Your task to perform on an android device: Is it going to rain today? Image 0: 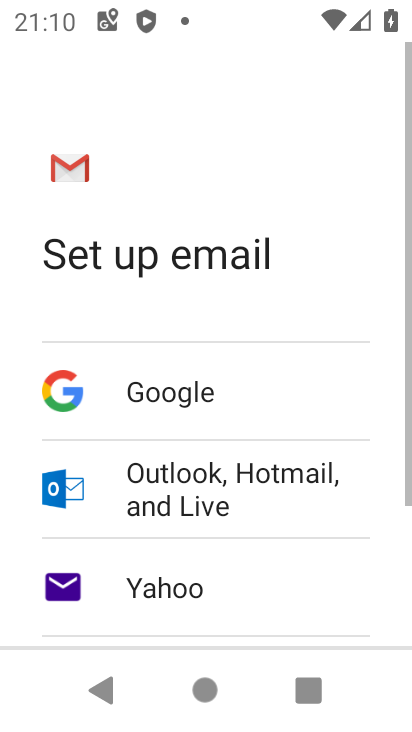
Step 0: press home button
Your task to perform on an android device: Is it going to rain today? Image 1: 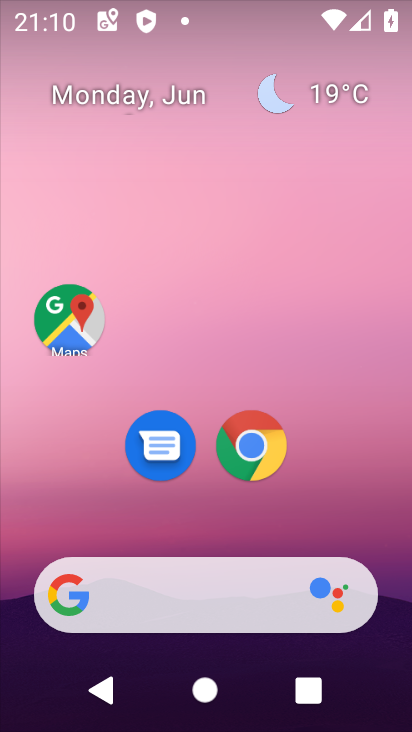
Step 1: click (331, 89)
Your task to perform on an android device: Is it going to rain today? Image 2: 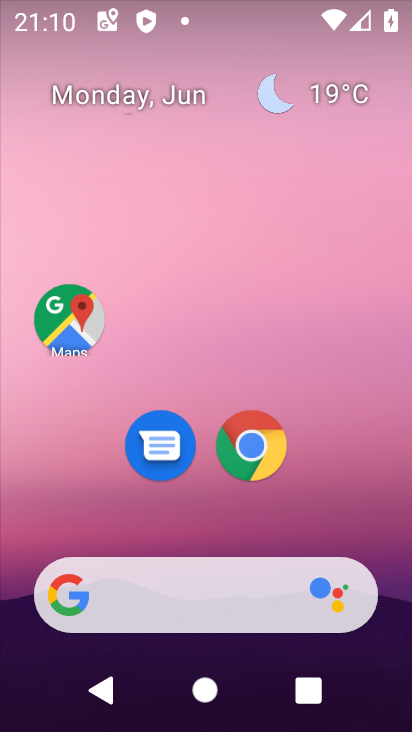
Step 2: click (334, 92)
Your task to perform on an android device: Is it going to rain today? Image 3: 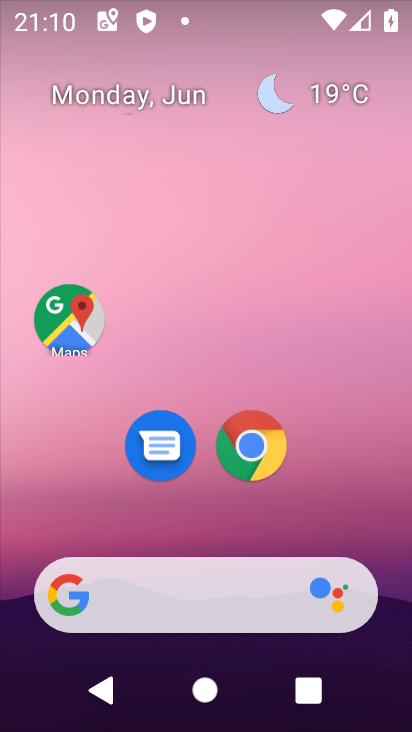
Step 3: click (323, 89)
Your task to perform on an android device: Is it going to rain today? Image 4: 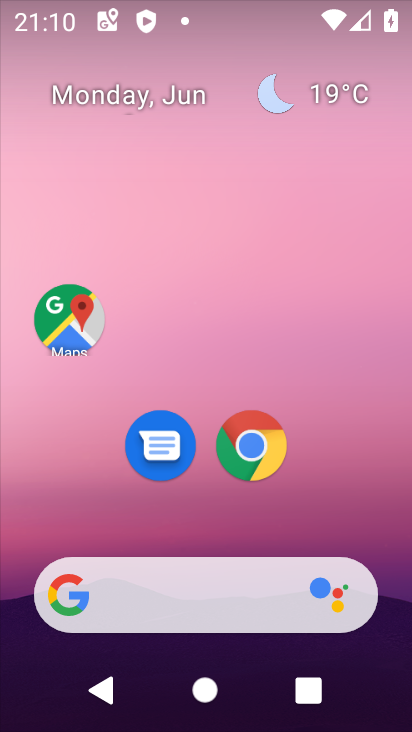
Step 4: click (326, 88)
Your task to perform on an android device: Is it going to rain today? Image 5: 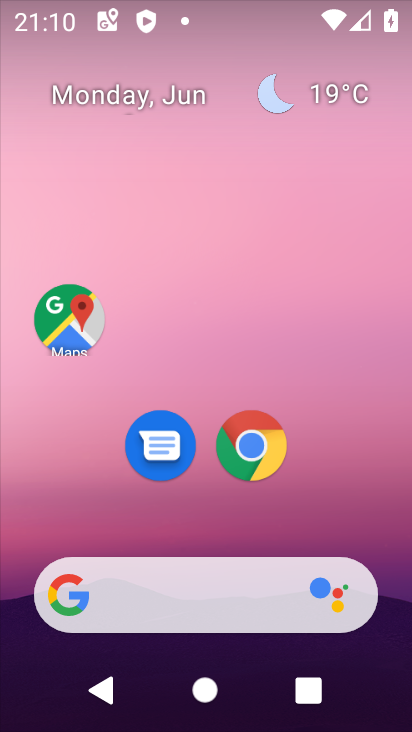
Step 5: click (326, 90)
Your task to perform on an android device: Is it going to rain today? Image 6: 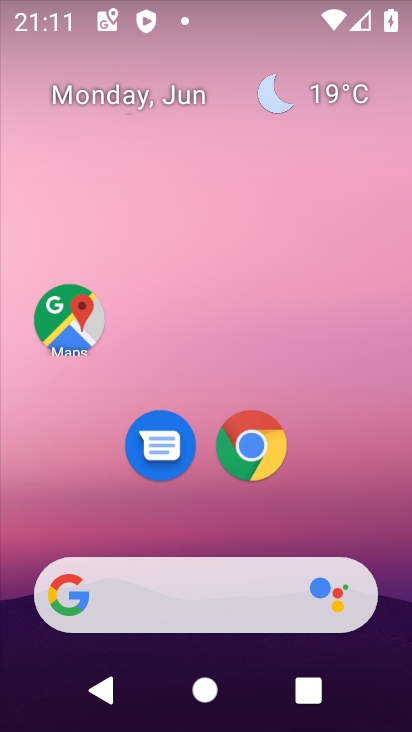
Step 6: click (333, 87)
Your task to perform on an android device: Is it going to rain today? Image 7: 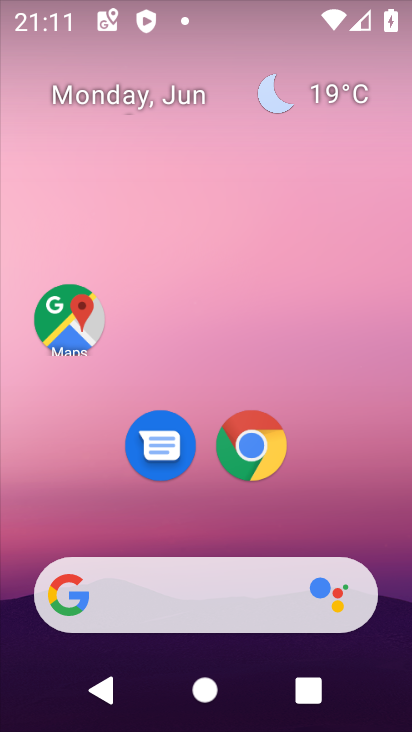
Step 7: click (357, 85)
Your task to perform on an android device: Is it going to rain today? Image 8: 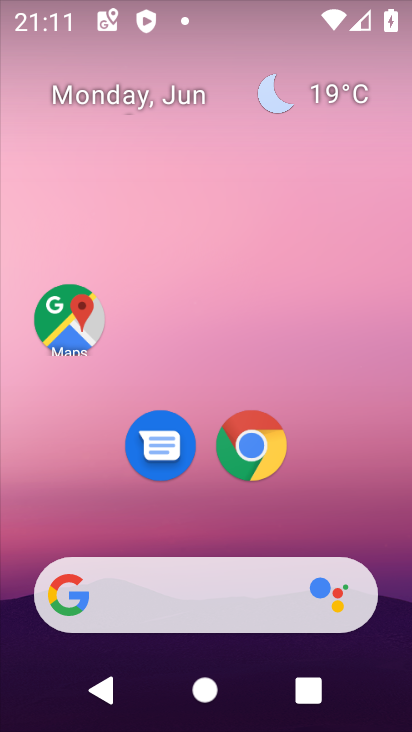
Step 8: click (343, 94)
Your task to perform on an android device: Is it going to rain today? Image 9: 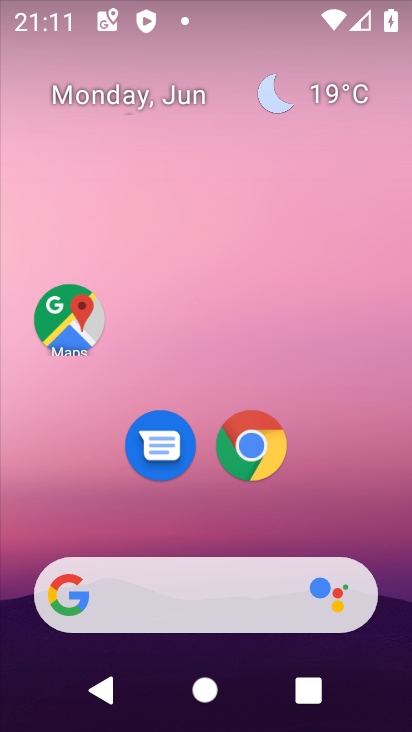
Step 9: drag from (17, 228) to (408, 251)
Your task to perform on an android device: Is it going to rain today? Image 10: 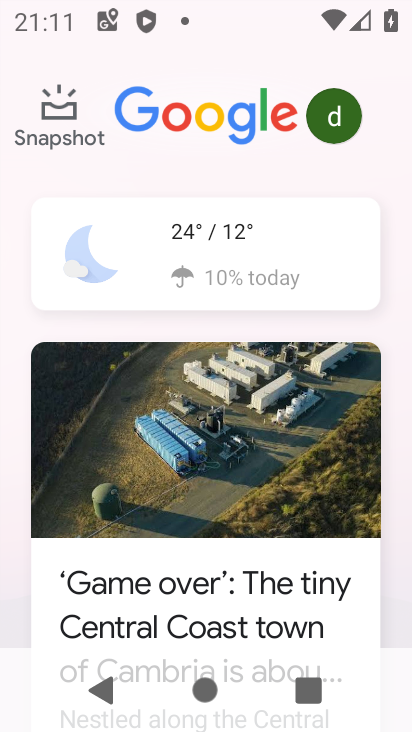
Step 10: click (194, 237)
Your task to perform on an android device: Is it going to rain today? Image 11: 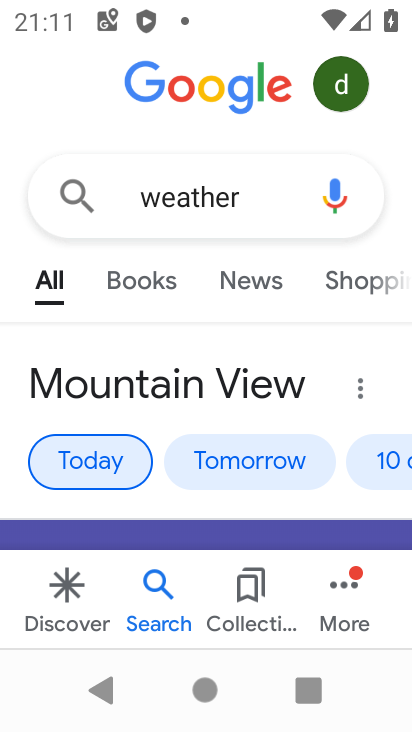
Step 11: drag from (213, 521) to (229, 235)
Your task to perform on an android device: Is it going to rain today? Image 12: 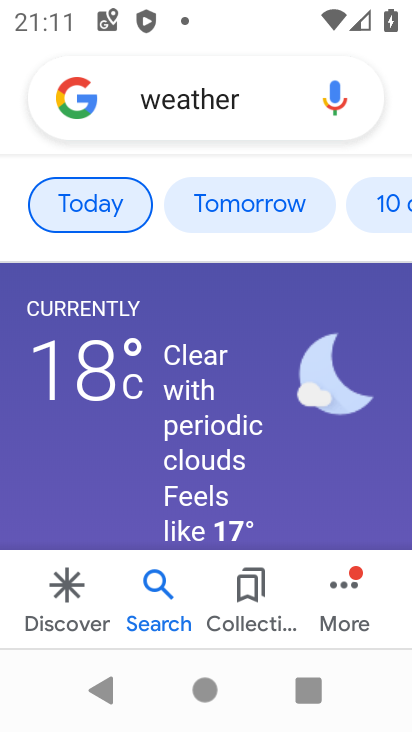
Step 12: click (229, 208)
Your task to perform on an android device: Is it going to rain today? Image 13: 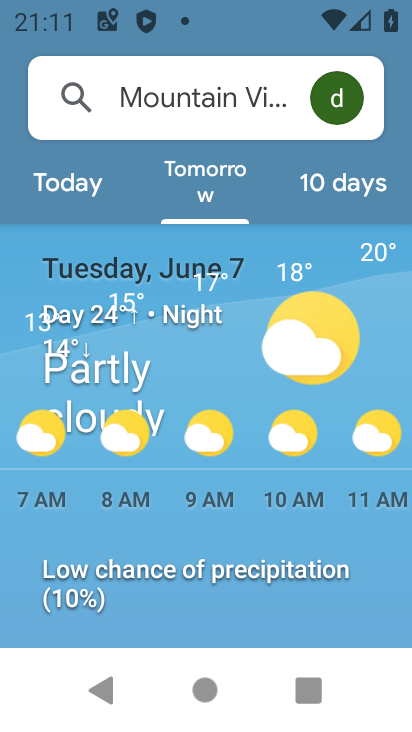
Step 13: task complete